Your task to perform on an android device: Turn on the flashlight Image 0: 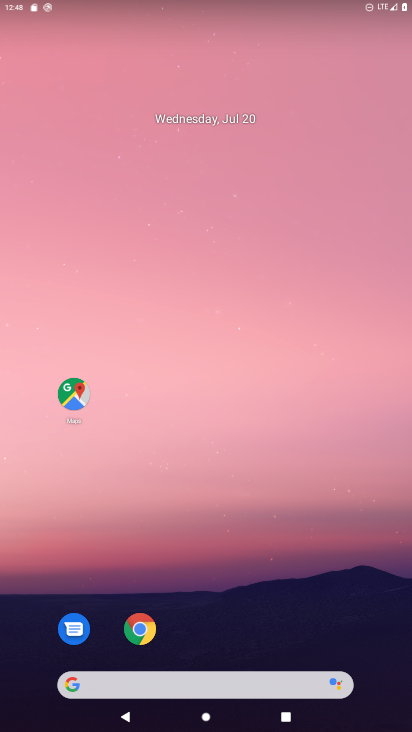
Step 0: drag from (195, 542) to (160, 236)
Your task to perform on an android device: Turn on the flashlight Image 1: 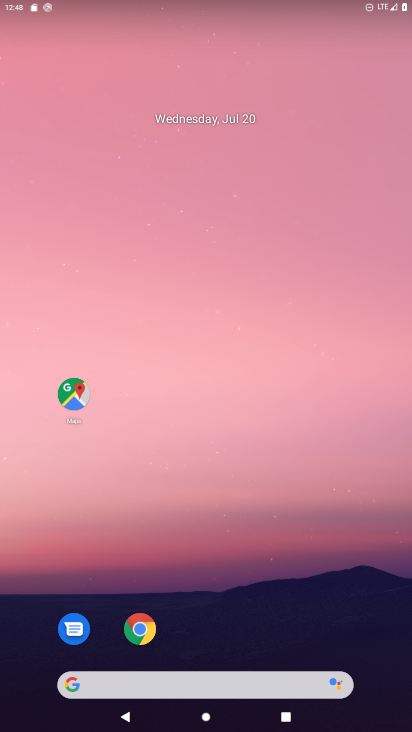
Step 1: task complete